Your task to perform on an android device: check the backup settings in the google photos Image 0: 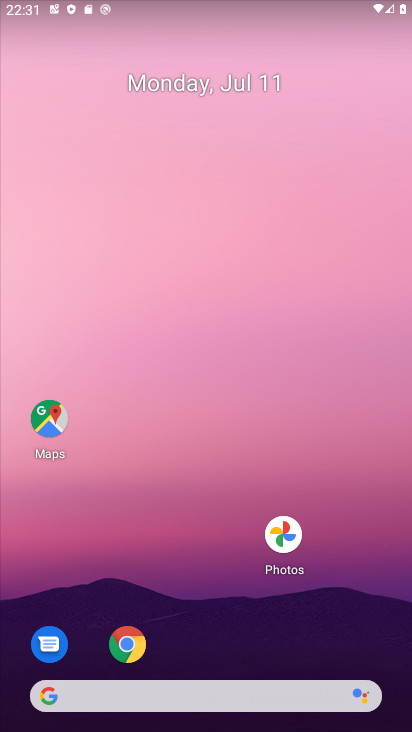
Step 0: drag from (252, 596) to (236, 111)
Your task to perform on an android device: check the backup settings in the google photos Image 1: 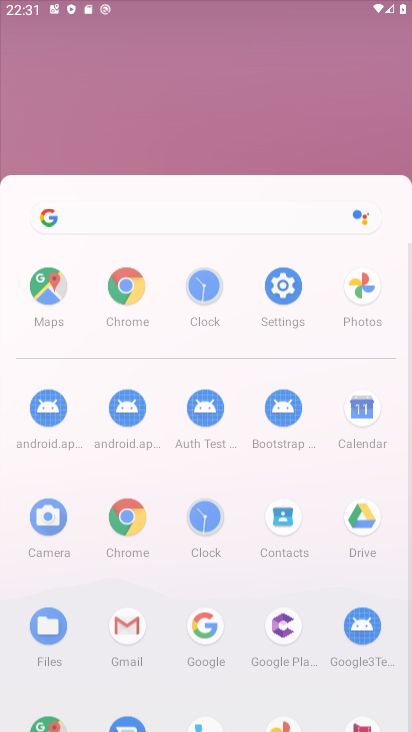
Step 1: click (235, 242)
Your task to perform on an android device: check the backup settings in the google photos Image 2: 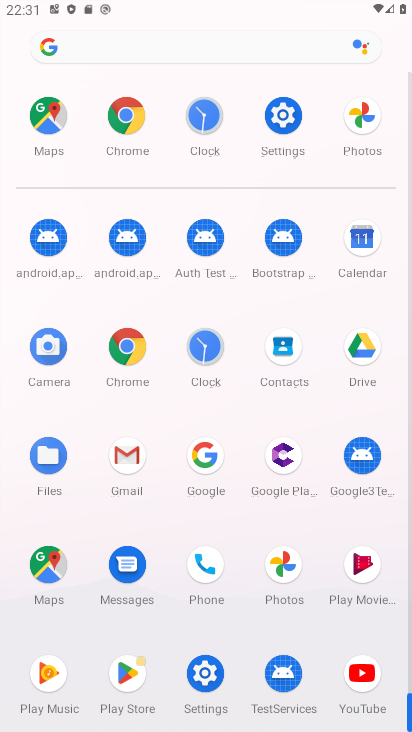
Step 2: drag from (288, 587) to (286, 247)
Your task to perform on an android device: check the backup settings in the google photos Image 3: 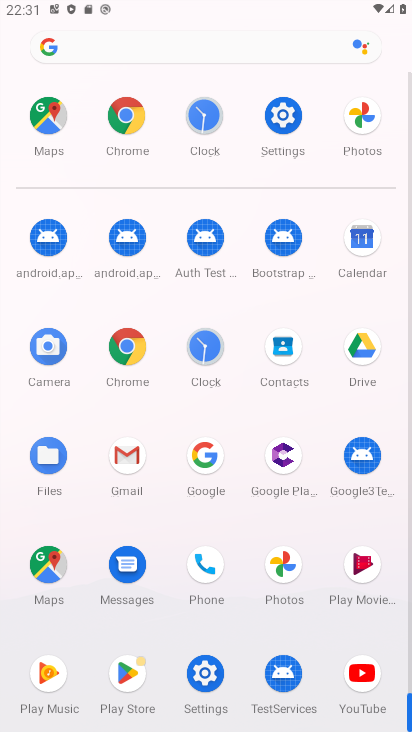
Step 3: click (276, 566)
Your task to perform on an android device: check the backup settings in the google photos Image 4: 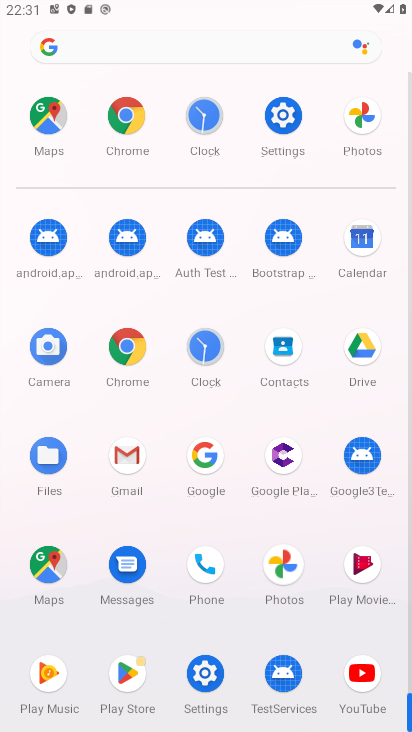
Step 4: click (289, 562)
Your task to perform on an android device: check the backup settings in the google photos Image 5: 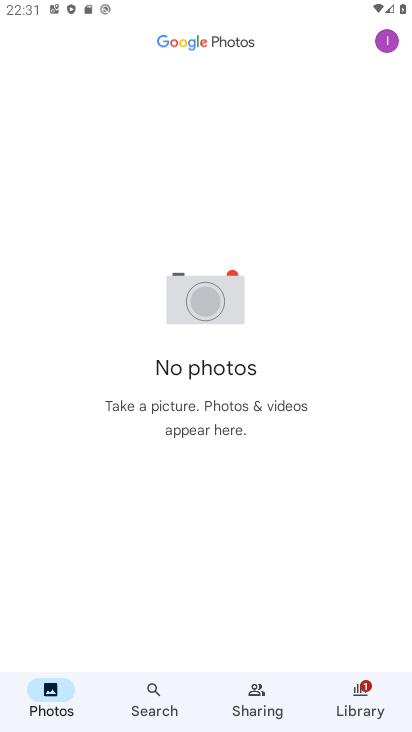
Step 5: click (290, 561)
Your task to perform on an android device: check the backup settings in the google photos Image 6: 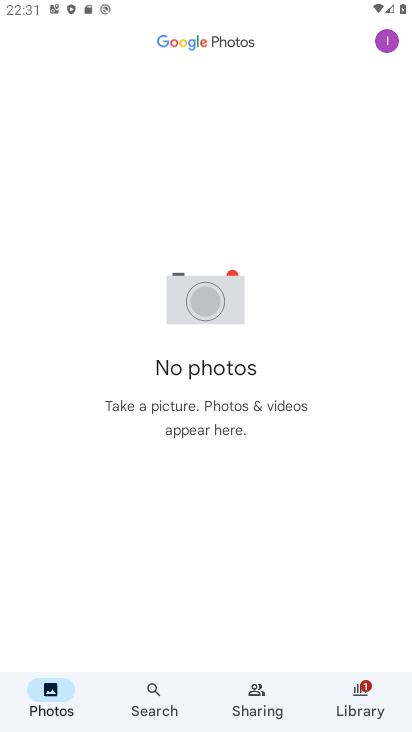
Step 6: click (290, 561)
Your task to perform on an android device: check the backup settings in the google photos Image 7: 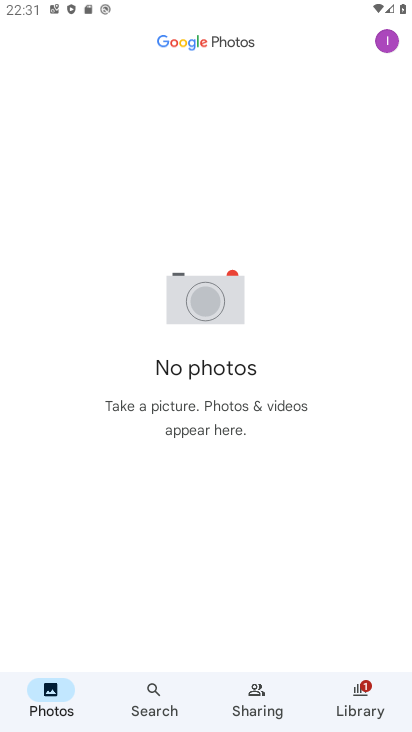
Step 7: click (263, 347)
Your task to perform on an android device: check the backup settings in the google photos Image 8: 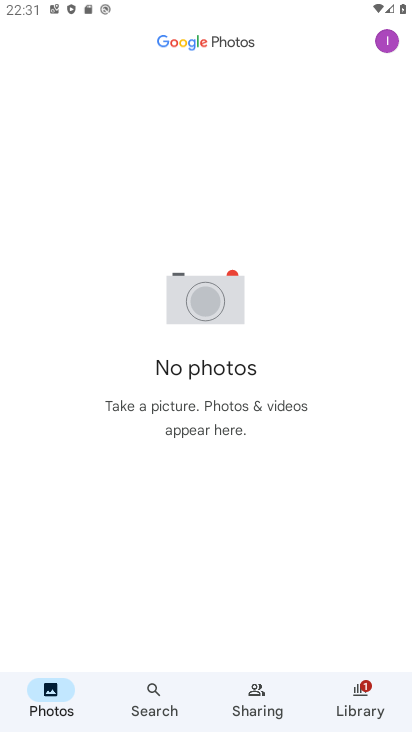
Step 8: click (262, 349)
Your task to perform on an android device: check the backup settings in the google photos Image 9: 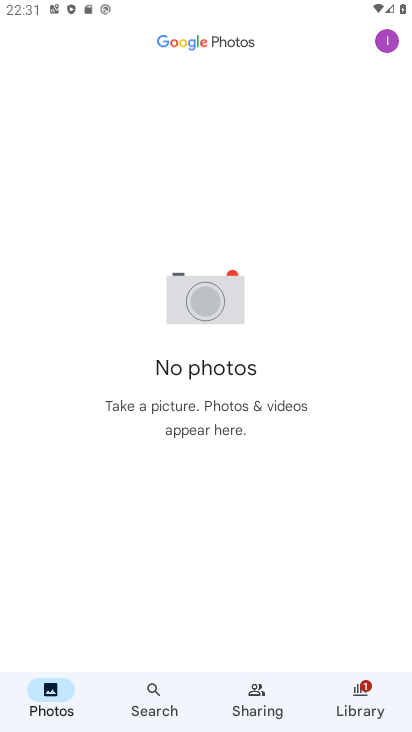
Step 9: click (255, 350)
Your task to perform on an android device: check the backup settings in the google photos Image 10: 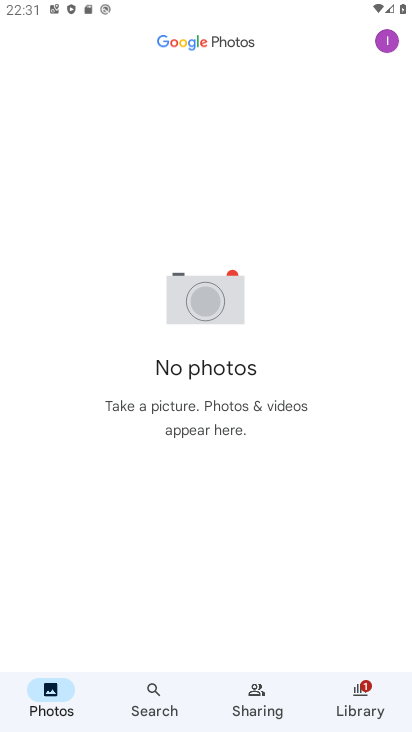
Step 10: click (380, 46)
Your task to perform on an android device: check the backup settings in the google photos Image 11: 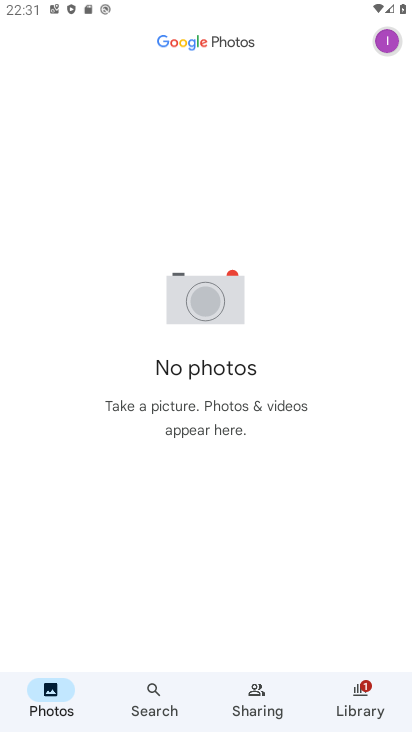
Step 11: click (391, 60)
Your task to perform on an android device: check the backup settings in the google photos Image 12: 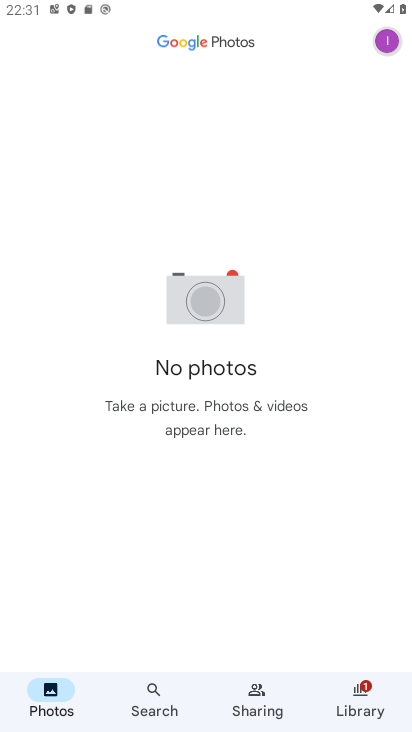
Step 12: click (397, 66)
Your task to perform on an android device: check the backup settings in the google photos Image 13: 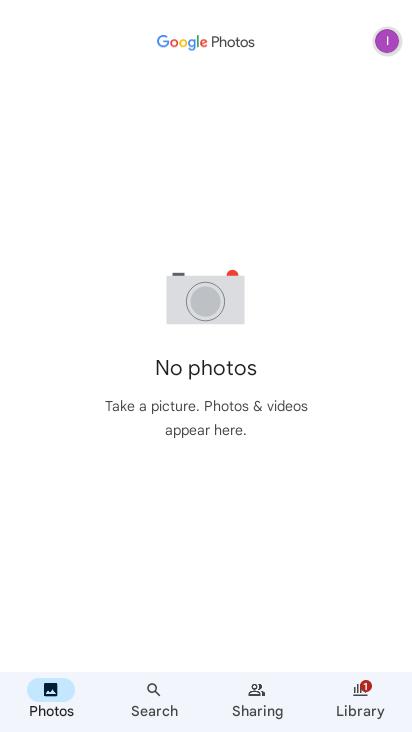
Step 13: click (388, 51)
Your task to perform on an android device: check the backup settings in the google photos Image 14: 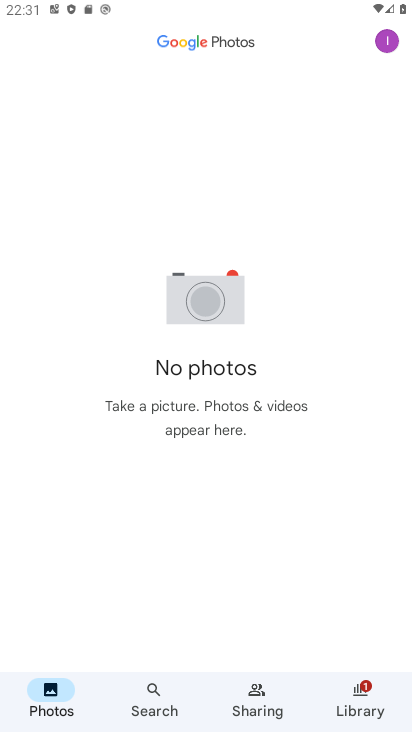
Step 14: click (390, 51)
Your task to perform on an android device: check the backup settings in the google photos Image 15: 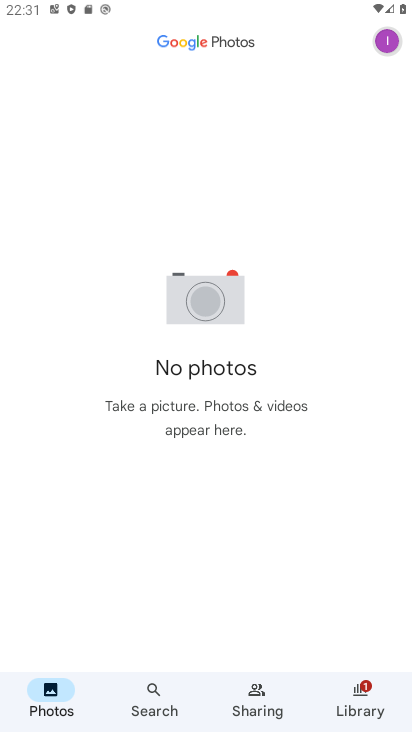
Step 15: click (394, 49)
Your task to perform on an android device: check the backup settings in the google photos Image 16: 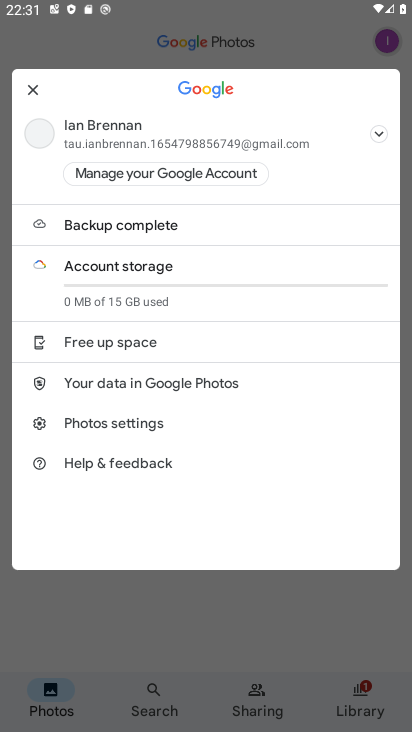
Step 16: click (393, 48)
Your task to perform on an android device: check the backup settings in the google photos Image 17: 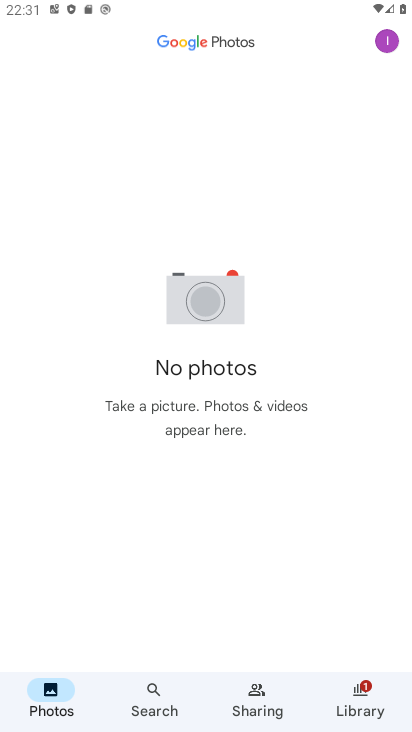
Step 17: click (388, 28)
Your task to perform on an android device: check the backup settings in the google photos Image 18: 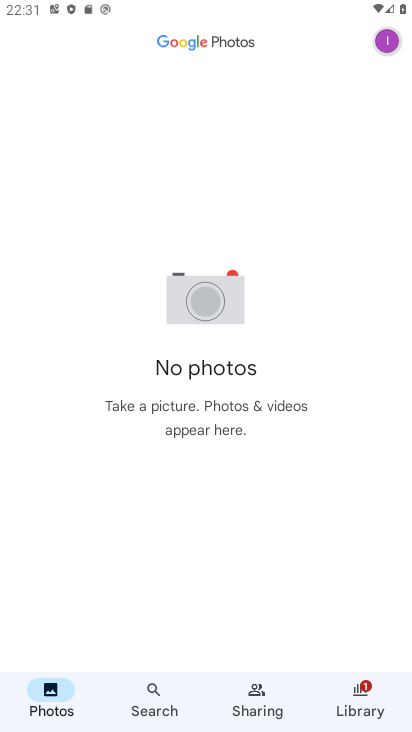
Step 18: click (388, 28)
Your task to perform on an android device: check the backup settings in the google photos Image 19: 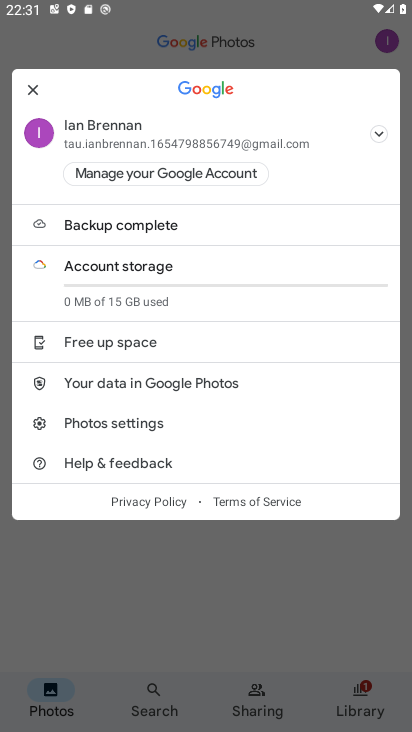
Step 19: click (136, 219)
Your task to perform on an android device: check the backup settings in the google photos Image 20: 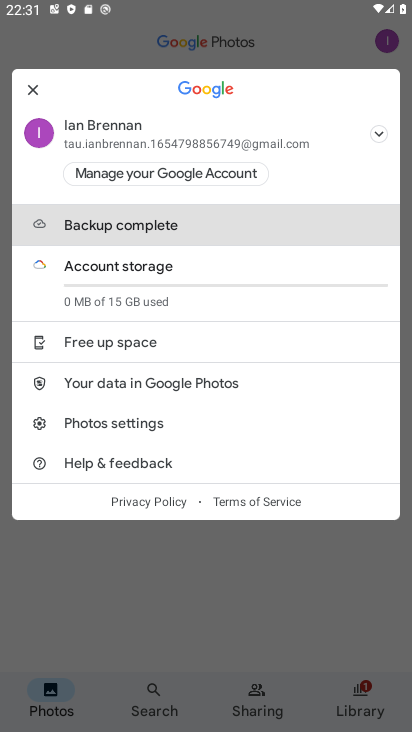
Step 20: click (136, 219)
Your task to perform on an android device: check the backup settings in the google photos Image 21: 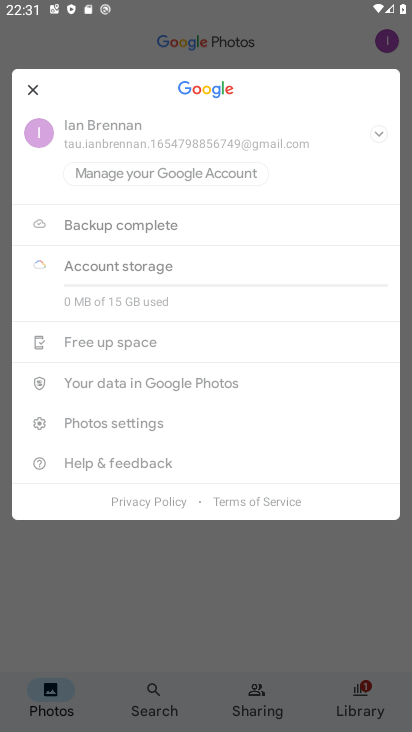
Step 21: click (136, 219)
Your task to perform on an android device: check the backup settings in the google photos Image 22: 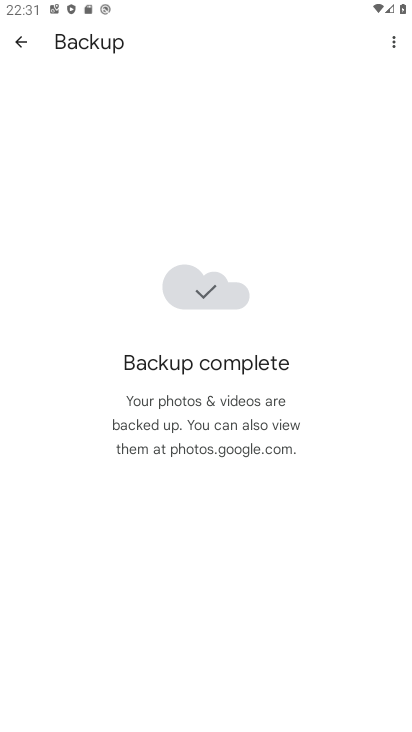
Step 22: task complete